Your task to perform on an android device: visit the assistant section in the google photos Image 0: 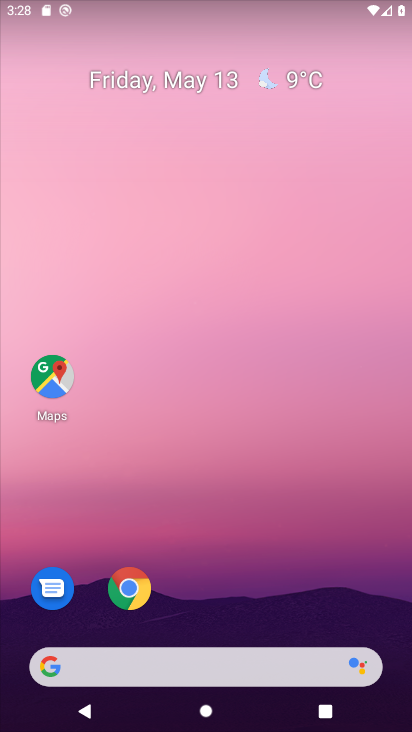
Step 0: drag from (282, 595) to (255, 6)
Your task to perform on an android device: visit the assistant section in the google photos Image 1: 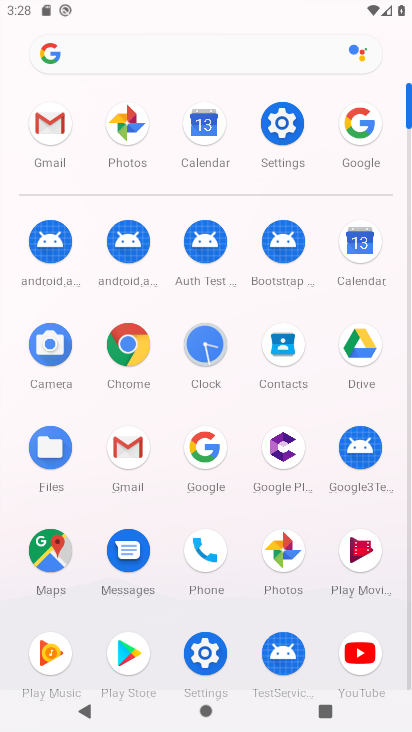
Step 1: click (124, 127)
Your task to perform on an android device: visit the assistant section in the google photos Image 2: 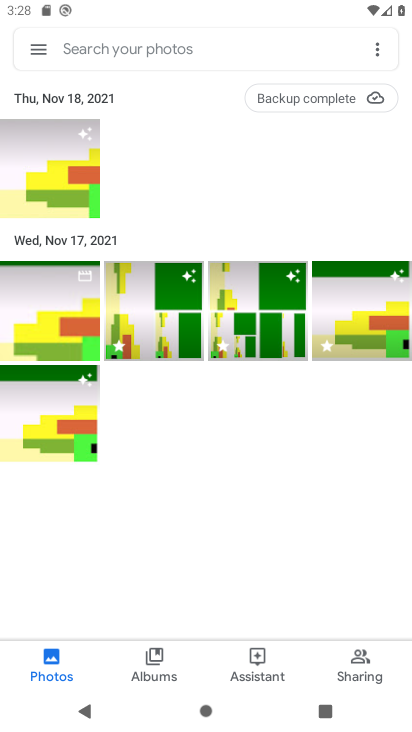
Step 2: click (273, 667)
Your task to perform on an android device: visit the assistant section in the google photos Image 3: 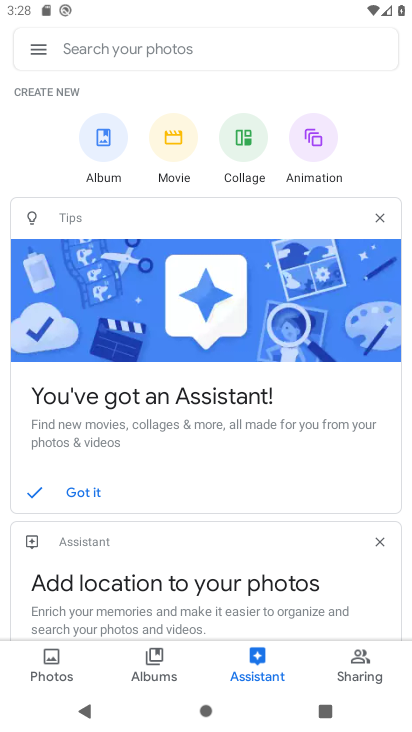
Step 3: task complete